Your task to perform on an android device: Open calendar and show me the first week of next month Image 0: 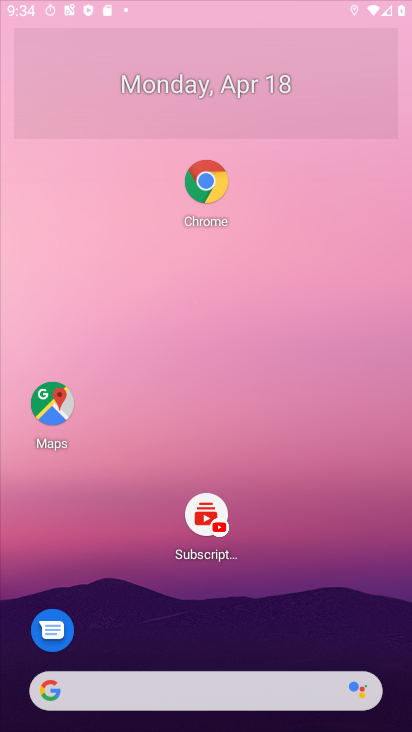
Step 0: click (131, 97)
Your task to perform on an android device: Open calendar and show me the first week of next month Image 1: 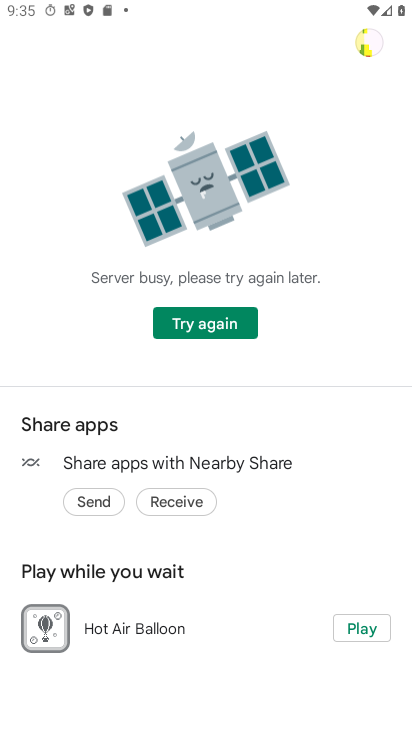
Step 1: press home button
Your task to perform on an android device: Open calendar and show me the first week of next month Image 2: 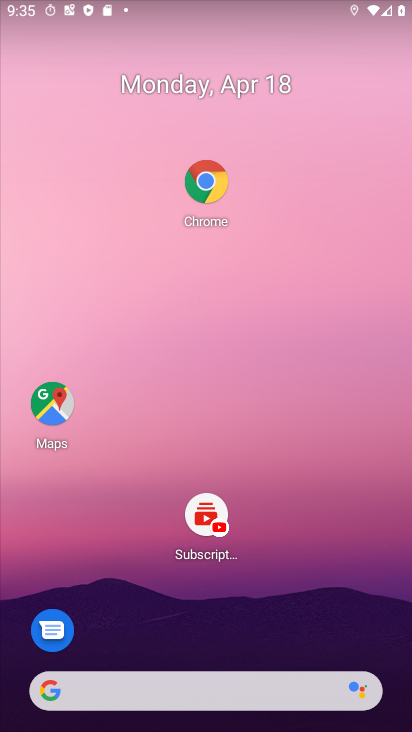
Step 2: drag from (168, 558) to (214, 147)
Your task to perform on an android device: Open calendar and show me the first week of next month Image 3: 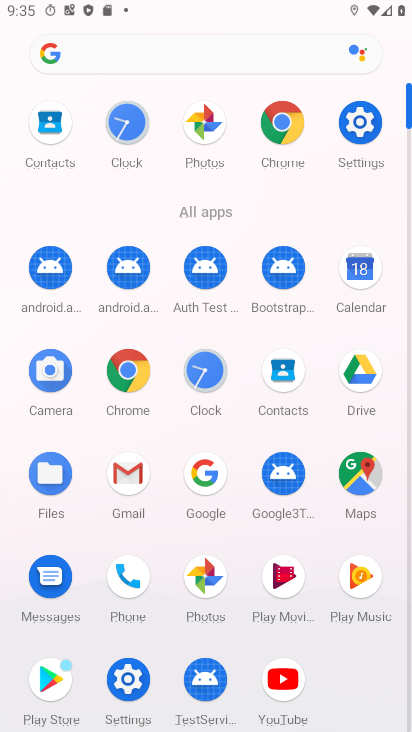
Step 3: click (368, 273)
Your task to perform on an android device: Open calendar and show me the first week of next month Image 4: 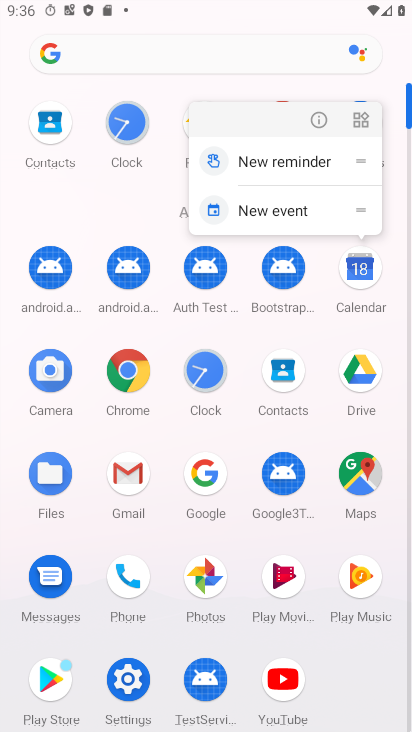
Step 4: click (358, 282)
Your task to perform on an android device: Open calendar and show me the first week of next month Image 5: 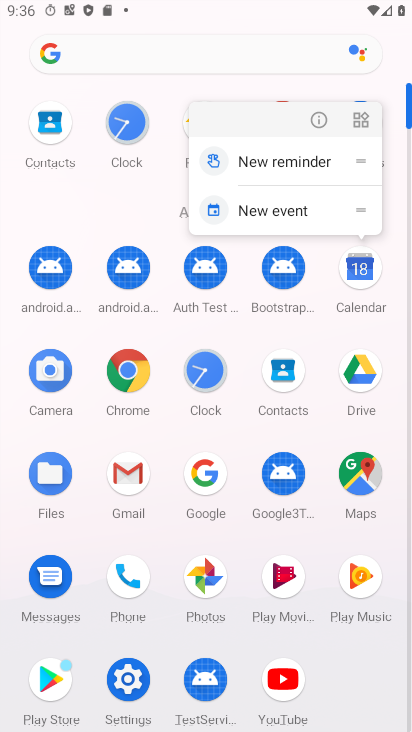
Step 5: click (360, 275)
Your task to perform on an android device: Open calendar and show me the first week of next month Image 6: 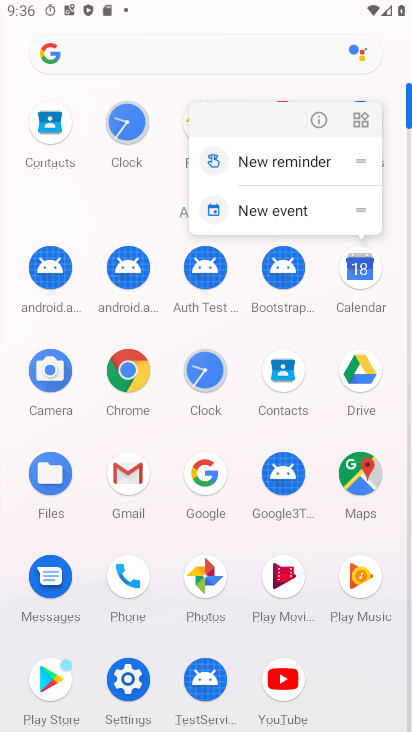
Step 6: click (359, 274)
Your task to perform on an android device: Open calendar and show me the first week of next month Image 7: 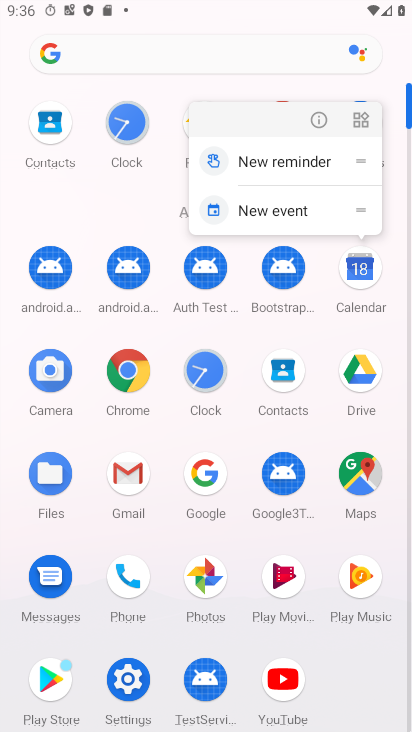
Step 7: click (359, 274)
Your task to perform on an android device: Open calendar and show me the first week of next month Image 8: 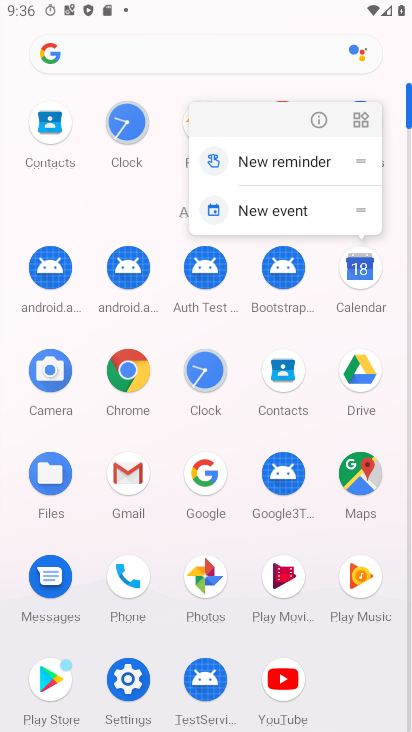
Step 8: click (360, 275)
Your task to perform on an android device: Open calendar and show me the first week of next month Image 9: 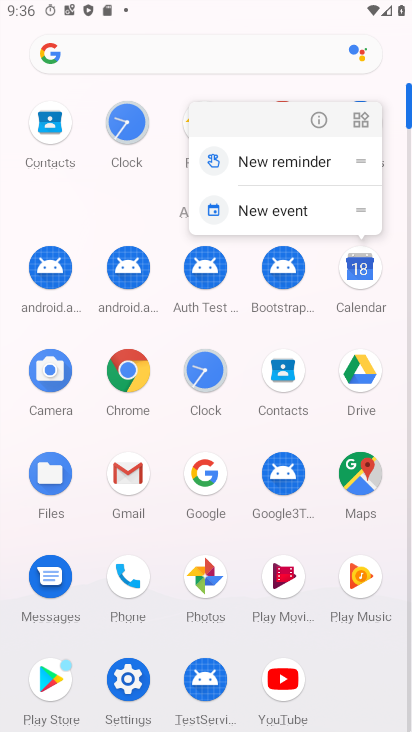
Step 9: click (360, 275)
Your task to perform on an android device: Open calendar and show me the first week of next month Image 10: 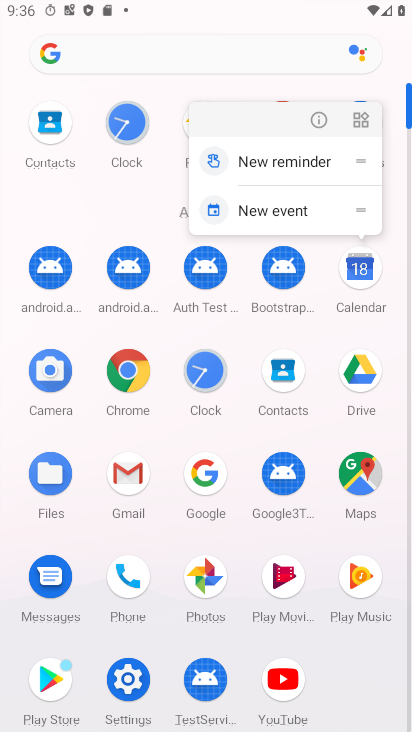
Step 10: click (355, 293)
Your task to perform on an android device: Open calendar and show me the first week of next month Image 11: 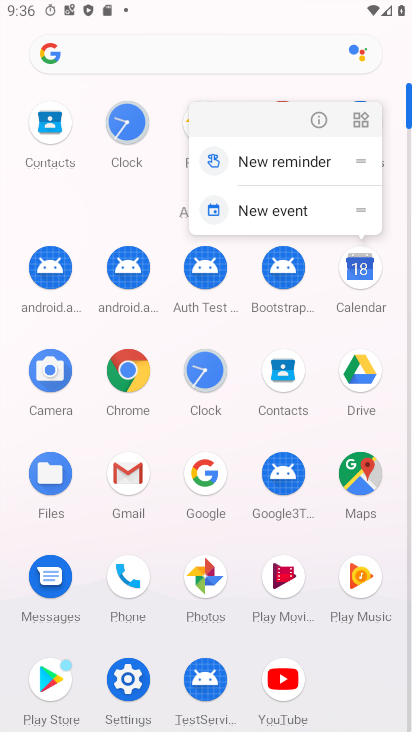
Step 11: click (362, 307)
Your task to perform on an android device: Open calendar and show me the first week of next month Image 12: 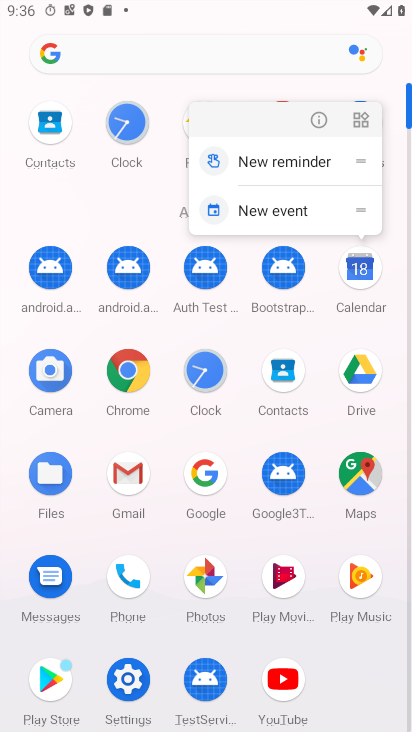
Step 12: click (348, 268)
Your task to perform on an android device: Open calendar and show me the first week of next month Image 13: 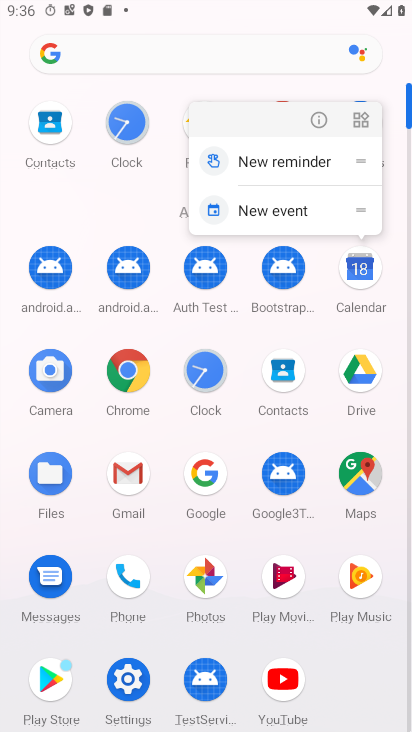
Step 13: click (352, 277)
Your task to perform on an android device: Open calendar and show me the first week of next month Image 14: 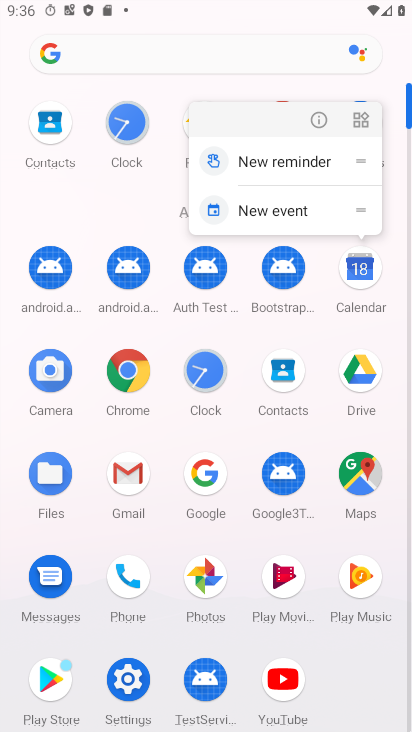
Step 14: click (352, 277)
Your task to perform on an android device: Open calendar and show me the first week of next month Image 15: 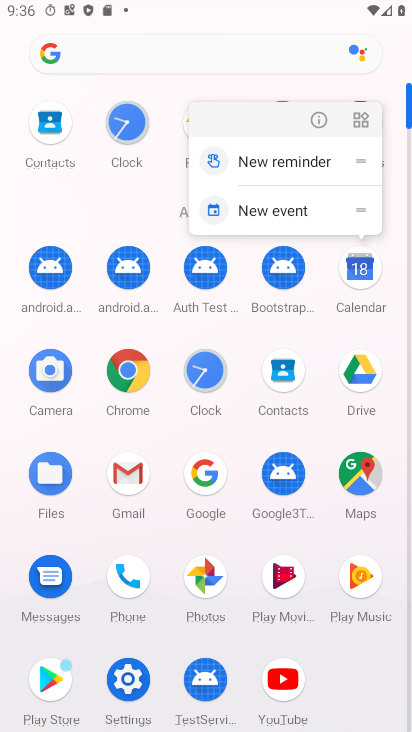
Step 15: click (353, 276)
Your task to perform on an android device: Open calendar and show me the first week of next month Image 16: 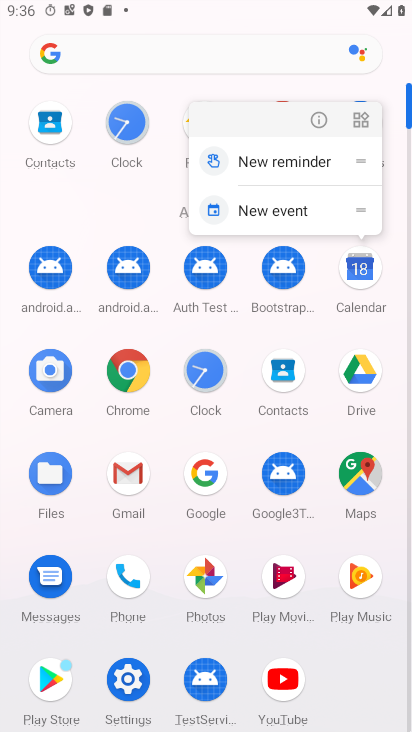
Step 16: click (353, 276)
Your task to perform on an android device: Open calendar and show me the first week of next month Image 17: 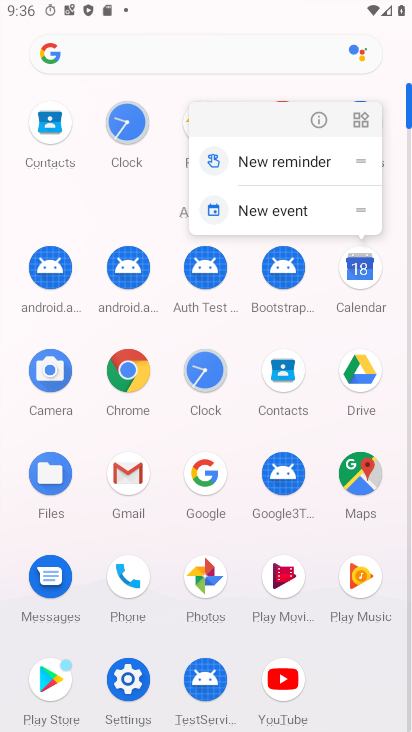
Step 17: click (353, 276)
Your task to perform on an android device: Open calendar and show me the first week of next month Image 18: 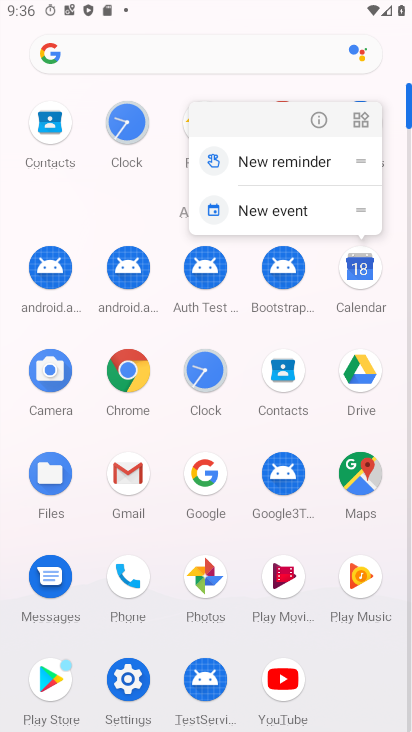
Step 18: click (353, 276)
Your task to perform on an android device: Open calendar and show me the first week of next month Image 19: 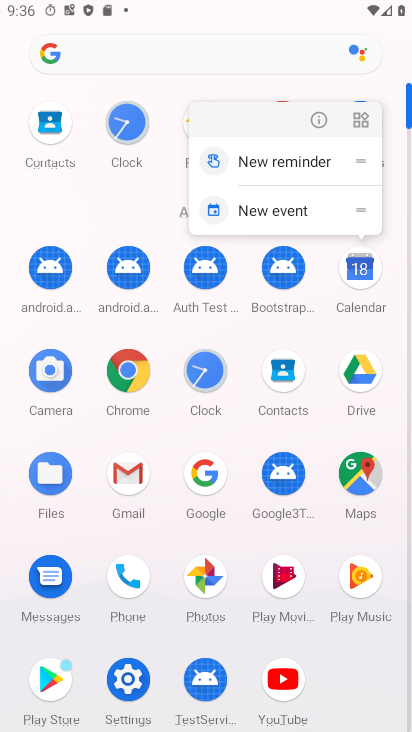
Step 19: click (356, 287)
Your task to perform on an android device: Open calendar and show me the first week of next month Image 20: 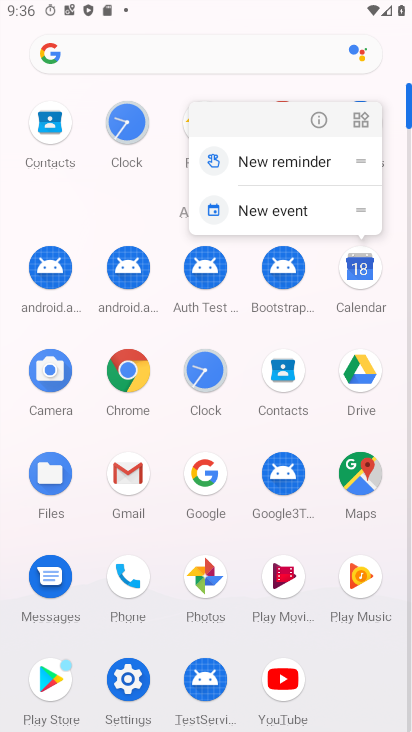
Step 20: click (356, 289)
Your task to perform on an android device: Open calendar and show me the first week of next month Image 21: 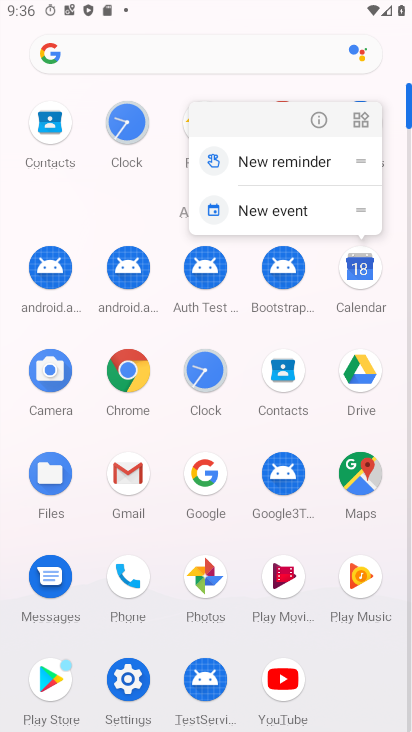
Step 21: click (356, 289)
Your task to perform on an android device: Open calendar and show me the first week of next month Image 22: 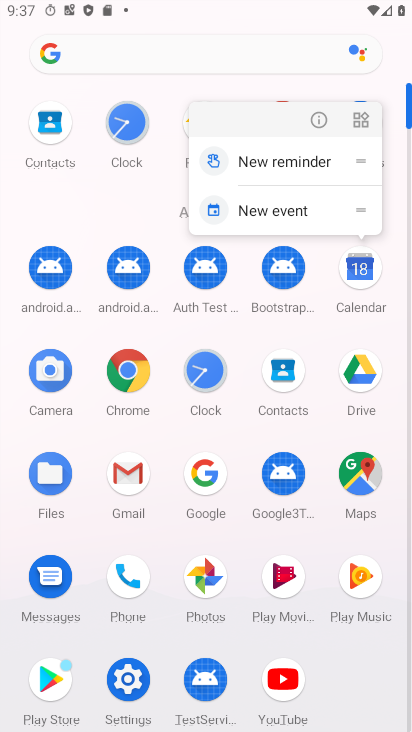
Step 22: click (355, 290)
Your task to perform on an android device: Open calendar and show me the first week of next month Image 23: 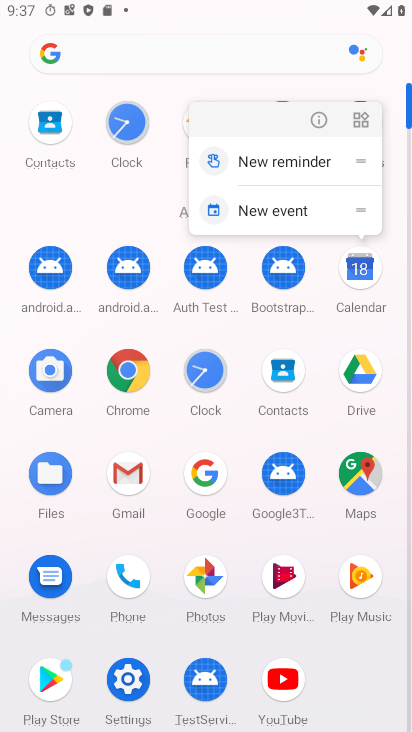
Step 23: click (355, 290)
Your task to perform on an android device: Open calendar and show me the first week of next month Image 24: 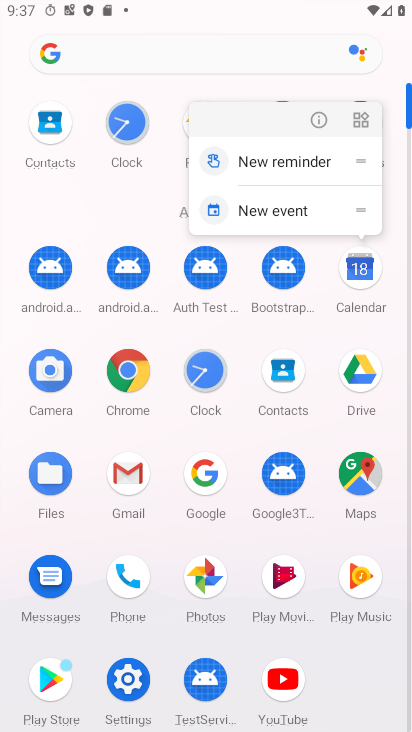
Step 24: click (353, 289)
Your task to perform on an android device: Open calendar and show me the first week of next month Image 25: 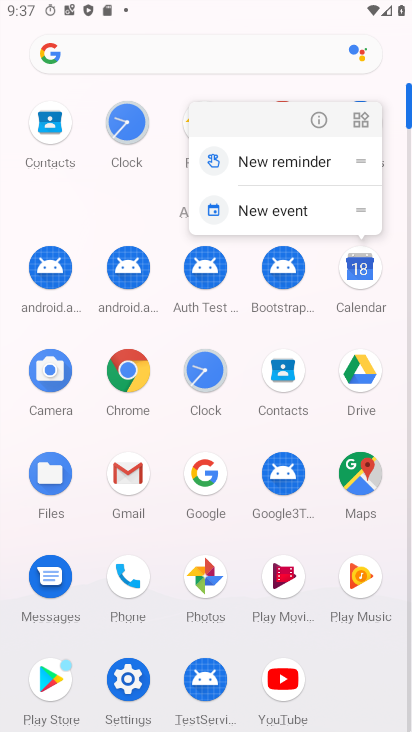
Step 25: click (359, 311)
Your task to perform on an android device: Open calendar and show me the first week of next month Image 26: 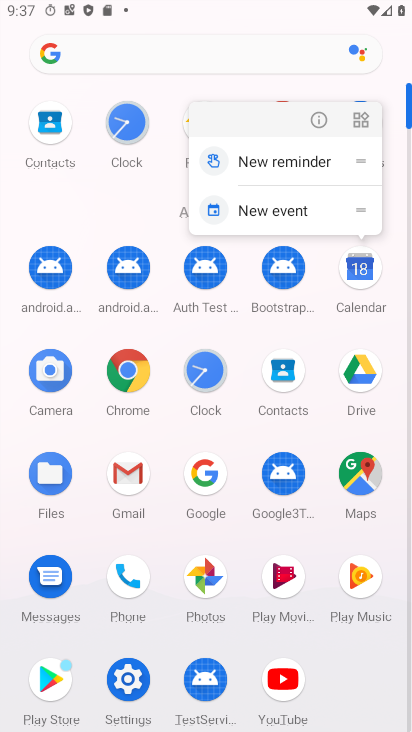
Step 26: click (316, 122)
Your task to perform on an android device: Open calendar and show me the first week of next month Image 27: 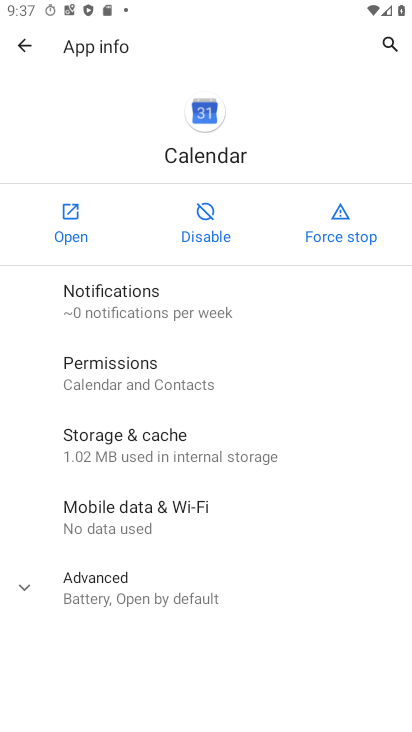
Step 27: click (73, 225)
Your task to perform on an android device: Open calendar and show me the first week of next month Image 28: 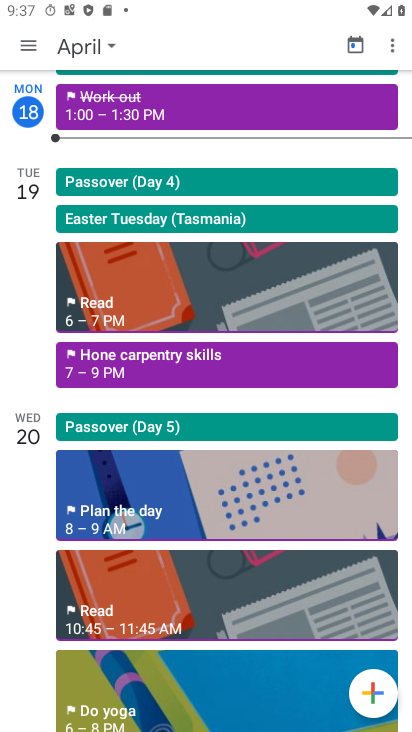
Step 28: click (102, 43)
Your task to perform on an android device: Open calendar and show me the first week of next month Image 29: 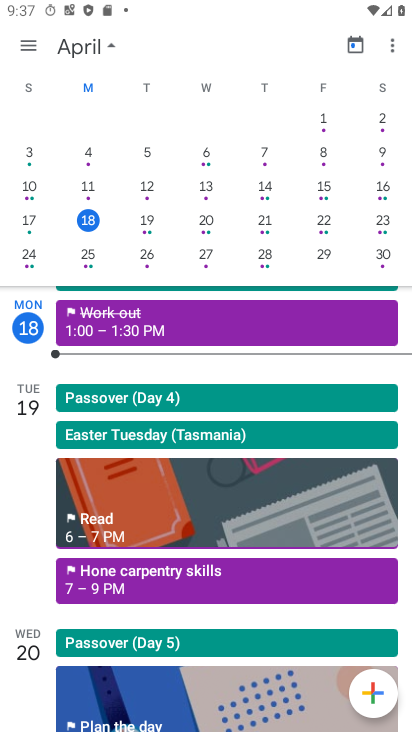
Step 29: drag from (285, 154) to (19, 154)
Your task to perform on an android device: Open calendar and show me the first week of next month Image 30: 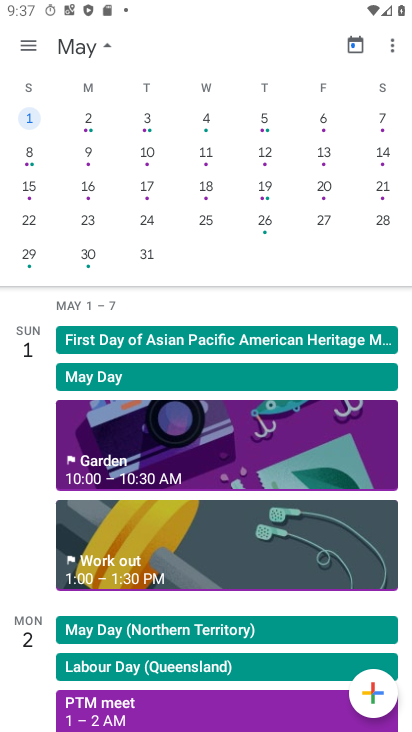
Step 30: click (144, 120)
Your task to perform on an android device: Open calendar and show me the first week of next month Image 31: 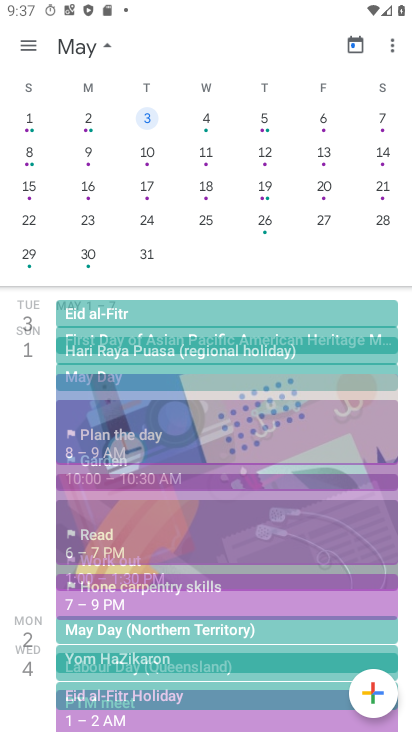
Step 31: click (35, 46)
Your task to perform on an android device: Open calendar and show me the first week of next month Image 32: 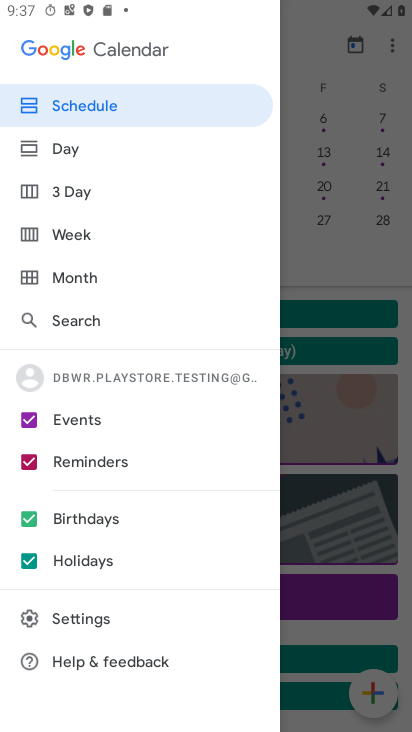
Step 32: click (83, 233)
Your task to perform on an android device: Open calendar and show me the first week of next month Image 33: 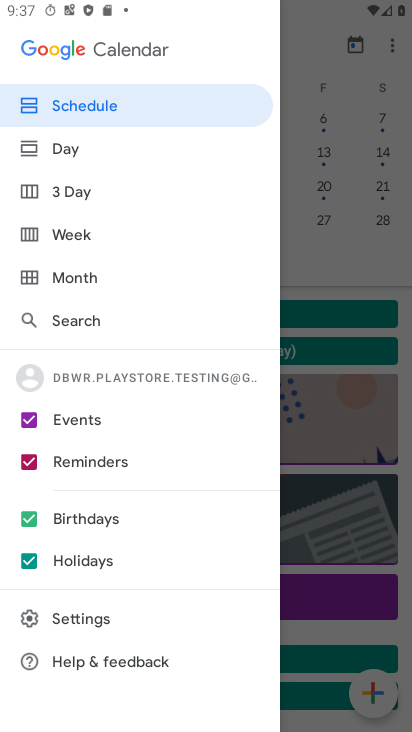
Step 33: click (65, 237)
Your task to perform on an android device: Open calendar and show me the first week of next month Image 34: 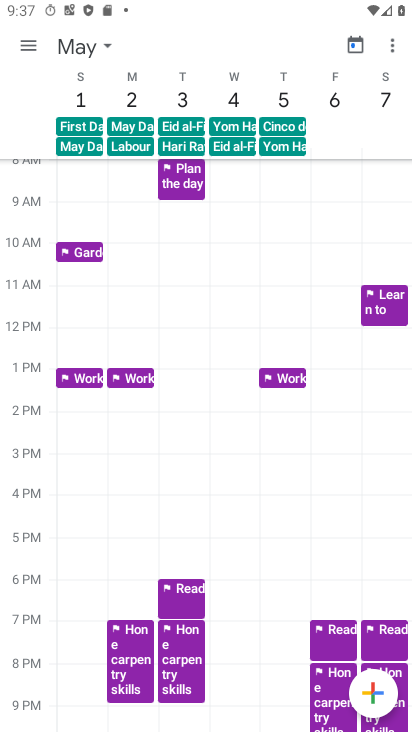
Step 34: task complete